Your task to perform on an android device: Add "asus zenbook" to the cart on target.com, then select checkout. Image 0: 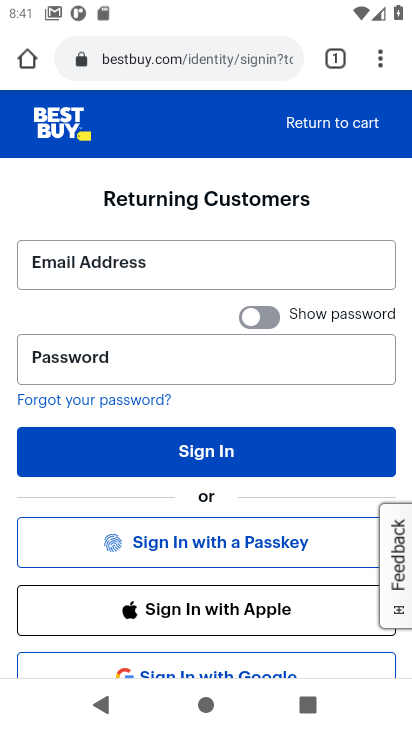
Step 0: click (205, 68)
Your task to perform on an android device: Add "asus zenbook" to the cart on target.com, then select checkout. Image 1: 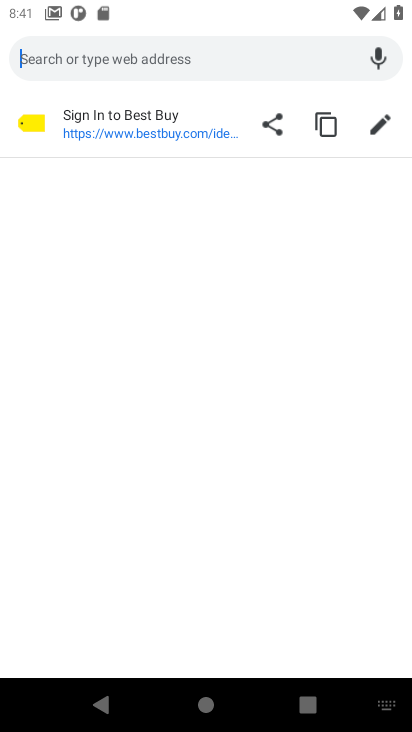
Step 1: type " target.com"
Your task to perform on an android device: Add "asus zenbook" to the cart on target.com, then select checkout. Image 2: 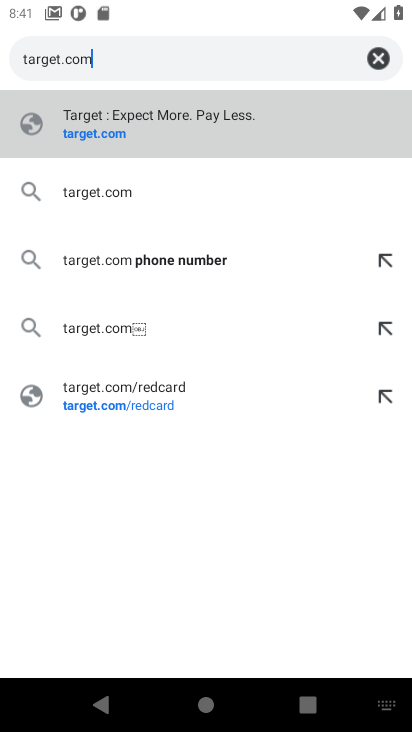
Step 2: press enter
Your task to perform on an android device: Add "asus zenbook" to the cart on target.com, then select checkout. Image 3: 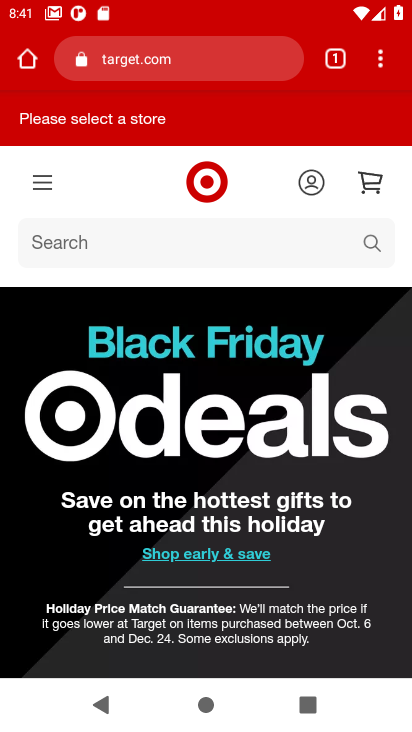
Step 3: click (54, 243)
Your task to perform on an android device: Add "asus zenbook" to the cart on target.com, then select checkout. Image 4: 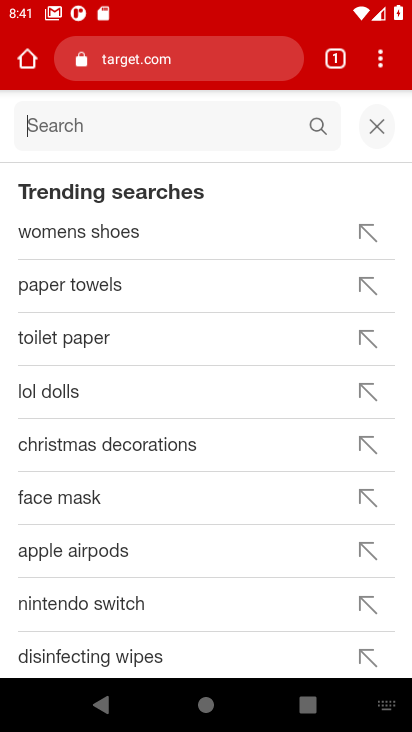
Step 4: type "asus zenbook"
Your task to perform on an android device: Add "asus zenbook" to the cart on target.com, then select checkout. Image 5: 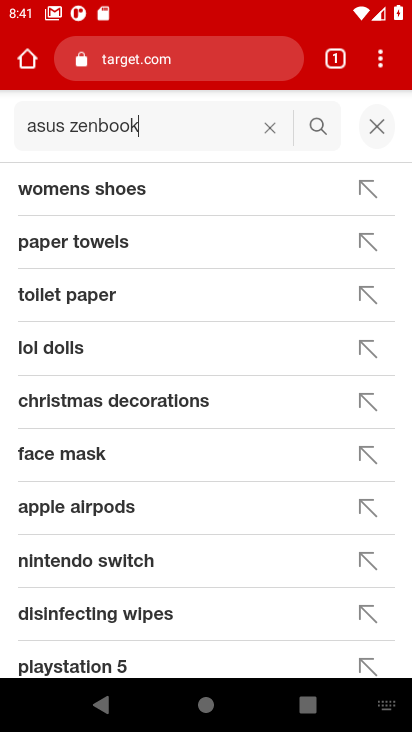
Step 5: press enter
Your task to perform on an android device: Add "asus zenbook" to the cart on target.com, then select checkout. Image 6: 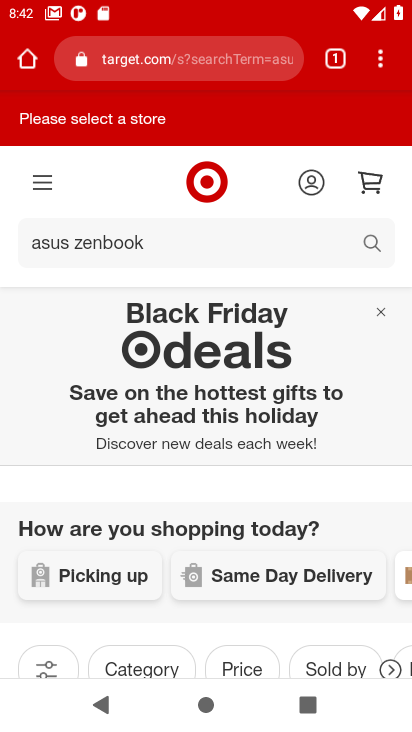
Step 6: drag from (205, 543) to (188, 251)
Your task to perform on an android device: Add "asus zenbook" to the cart on target.com, then select checkout. Image 7: 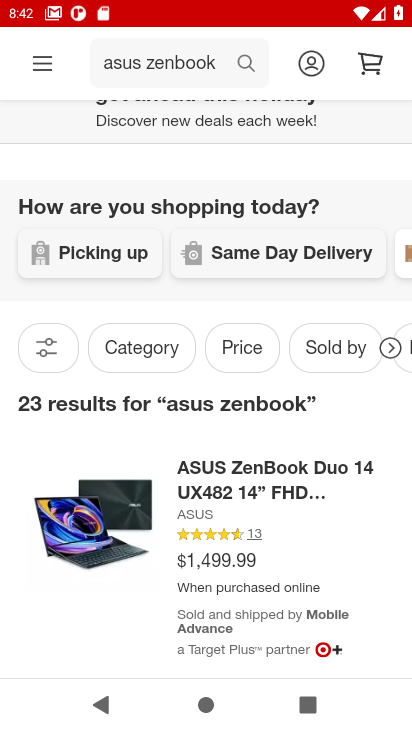
Step 7: drag from (123, 541) to (61, 251)
Your task to perform on an android device: Add "asus zenbook" to the cart on target.com, then select checkout. Image 8: 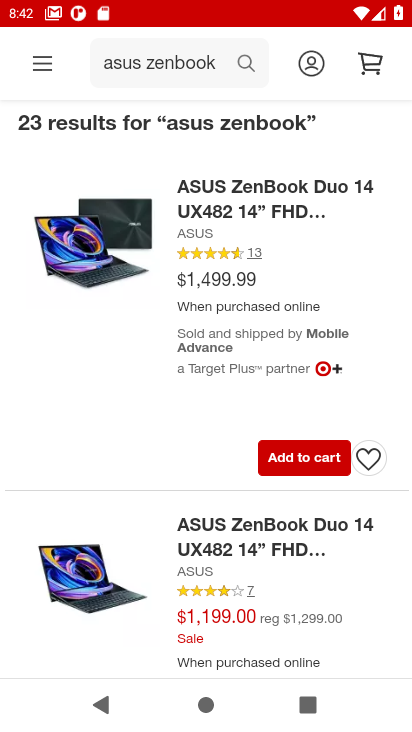
Step 8: click (286, 456)
Your task to perform on an android device: Add "asus zenbook" to the cart on target.com, then select checkout. Image 9: 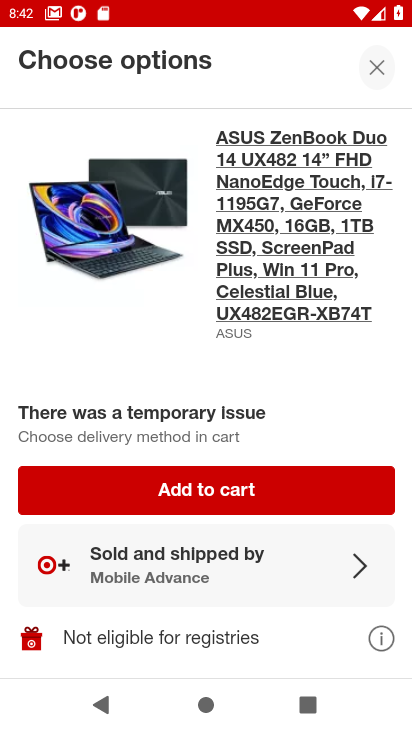
Step 9: click (230, 488)
Your task to perform on an android device: Add "asus zenbook" to the cart on target.com, then select checkout. Image 10: 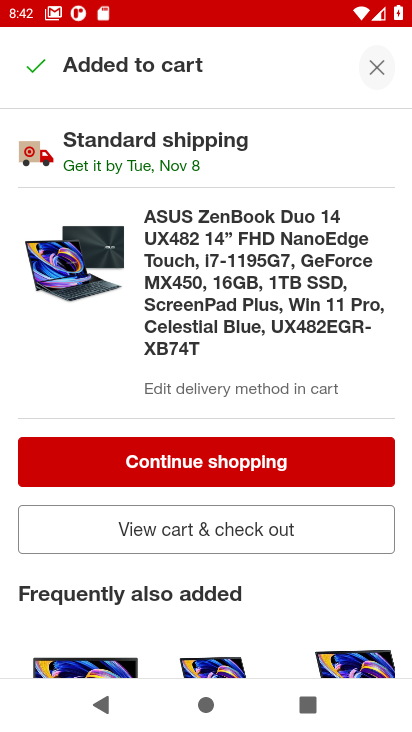
Step 10: click (213, 533)
Your task to perform on an android device: Add "asus zenbook" to the cart on target.com, then select checkout. Image 11: 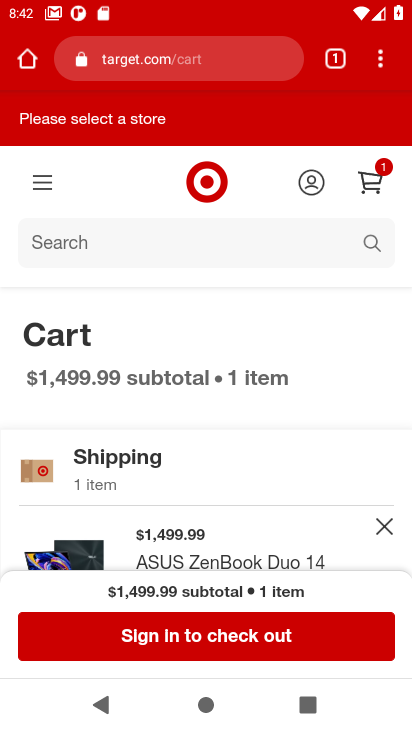
Step 11: task complete